Your task to perform on an android device: Open the phone app and click the voicemail tab. Image 0: 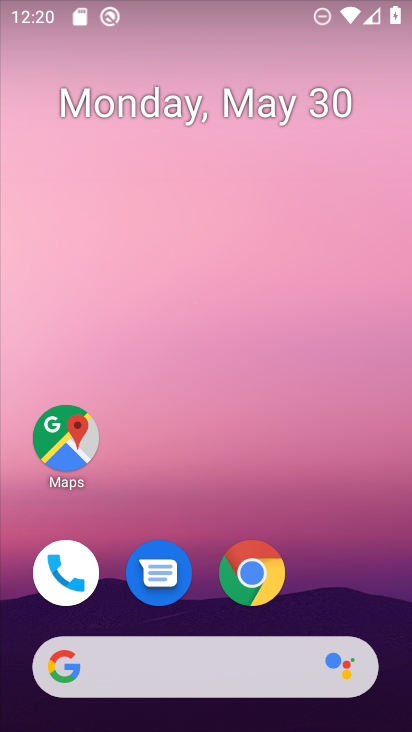
Step 0: drag from (323, 572) to (323, 186)
Your task to perform on an android device: Open the phone app and click the voicemail tab. Image 1: 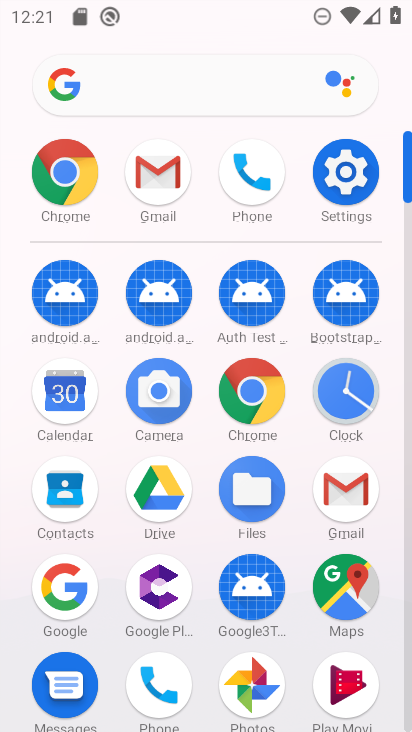
Step 1: click (161, 689)
Your task to perform on an android device: Open the phone app and click the voicemail tab. Image 2: 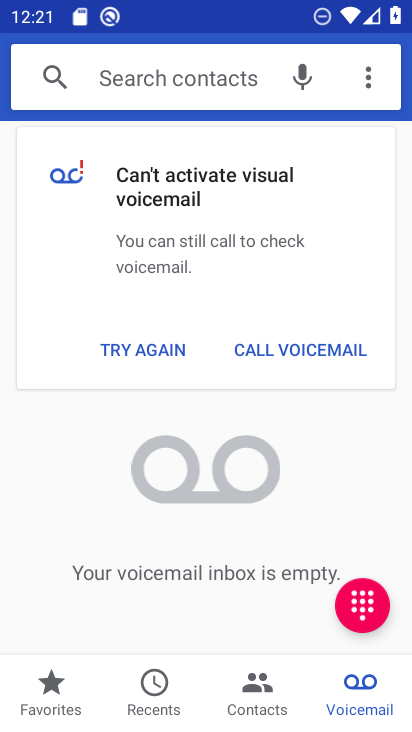
Step 2: click (357, 694)
Your task to perform on an android device: Open the phone app and click the voicemail tab. Image 3: 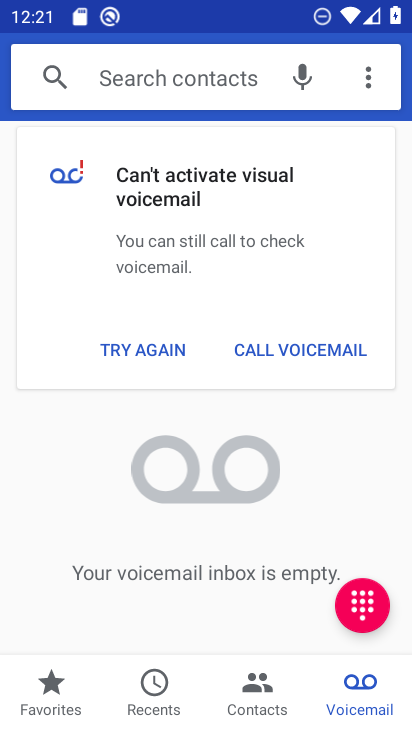
Step 3: task complete